Your task to perform on an android device: Is it going to rain tomorrow? Image 0: 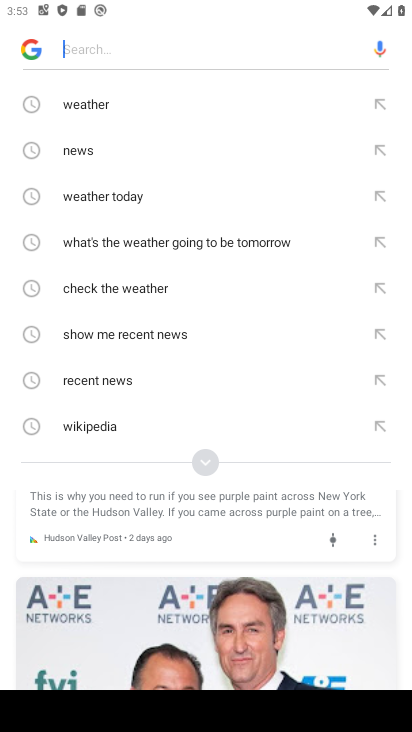
Step 0: press home button
Your task to perform on an android device: Is it going to rain tomorrow? Image 1: 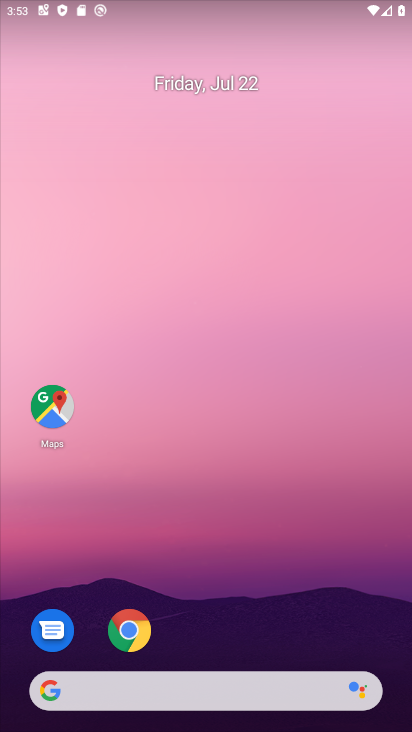
Step 1: drag from (237, 692) to (234, 29)
Your task to perform on an android device: Is it going to rain tomorrow? Image 2: 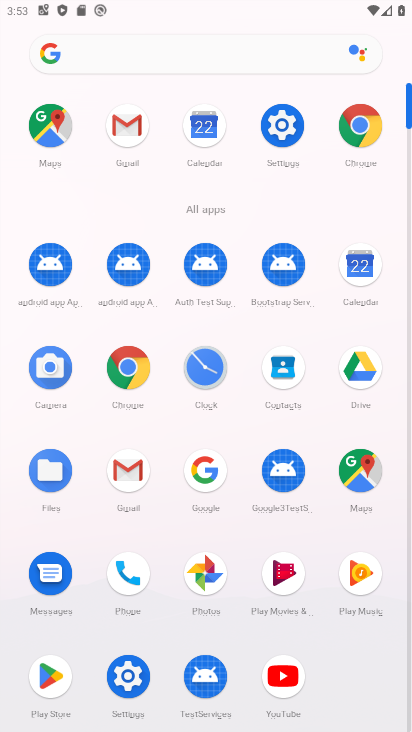
Step 2: click (137, 380)
Your task to perform on an android device: Is it going to rain tomorrow? Image 3: 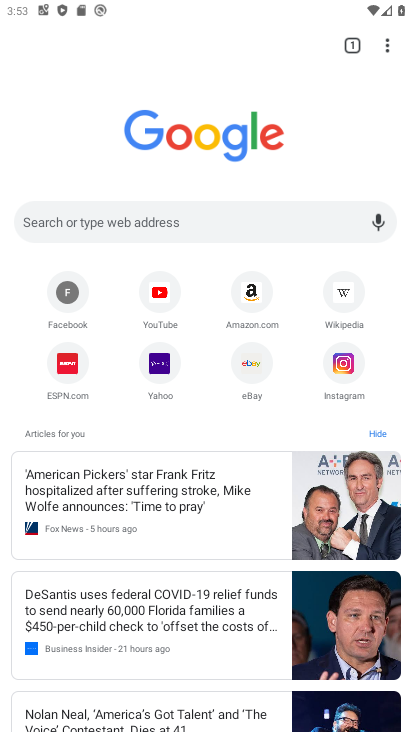
Step 3: click (239, 224)
Your task to perform on an android device: Is it going to rain tomorrow? Image 4: 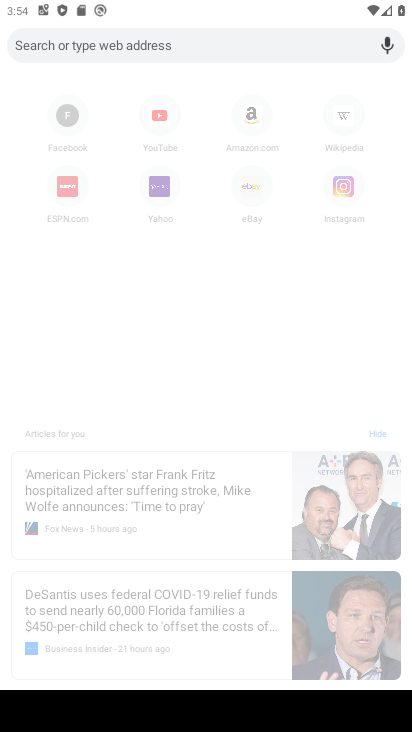
Step 4: type "going to rain tomorrow"
Your task to perform on an android device: Is it going to rain tomorrow? Image 5: 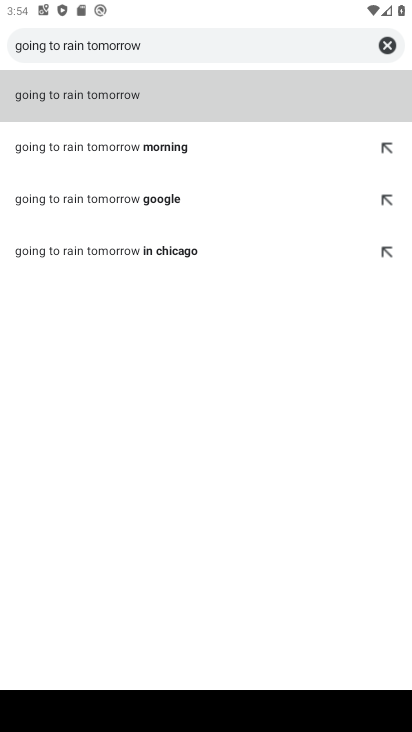
Step 5: click (118, 109)
Your task to perform on an android device: Is it going to rain tomorrow? Image 6: 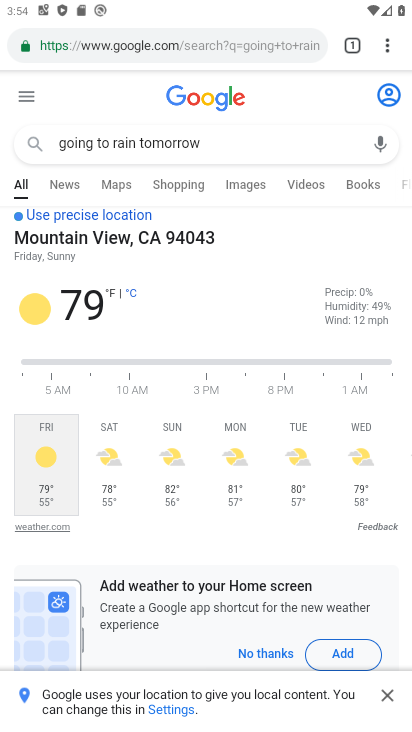
Step 6: task complete